Your task to perform on an android device: find which apps use the phone's location Image 0: 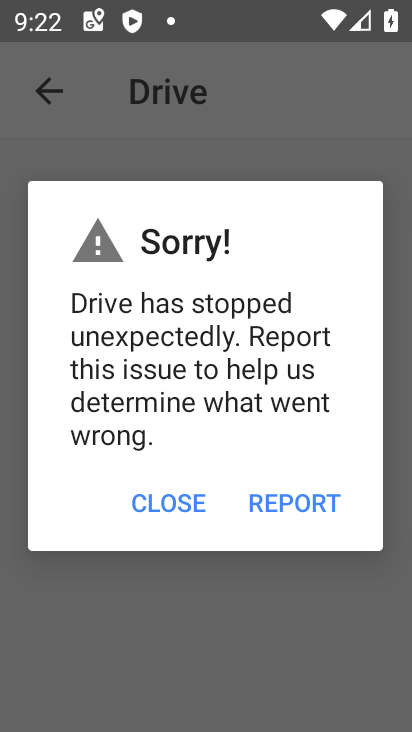
Step 0: task complete